Your task to perform on an android device: Is it going to rain this weekend? Image 0: 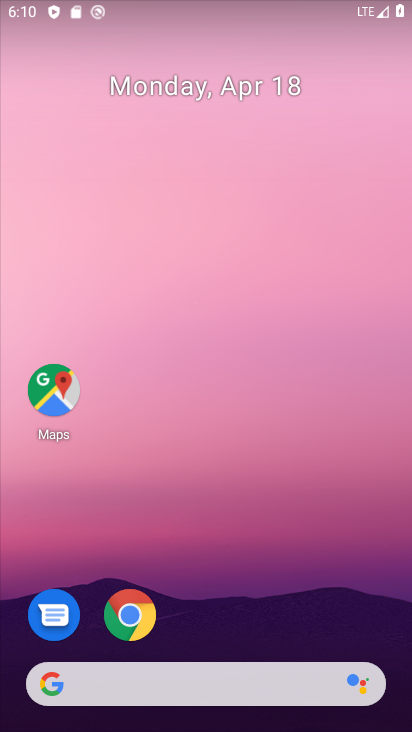
Step 0: drag from (243, 563) to (295, 128)
Your task to perform on an android device: Is it going to rain this weekend? Image 1: 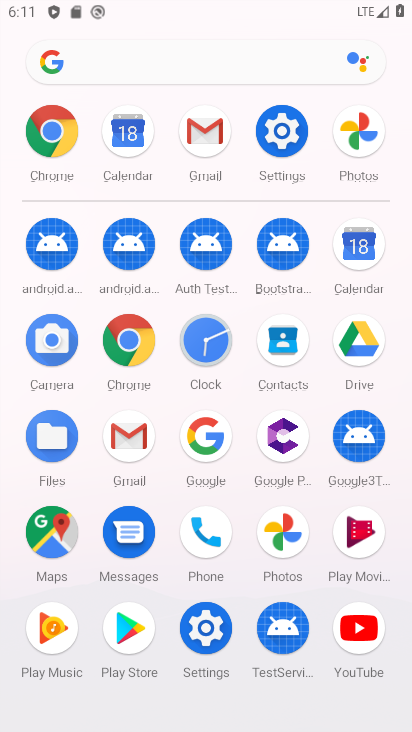
Step 1: click (39, 134)
Your task to perform on an android device: Is it going to rain this weekend? Image 2: 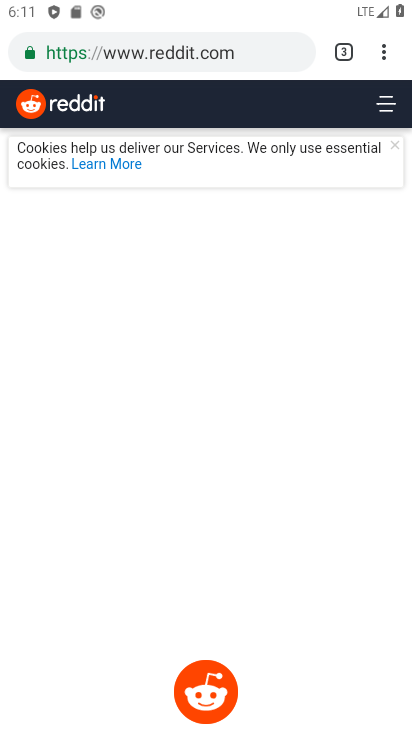
Step 2: click (153, 57)
Your task to perform on an android device: Is it going to rain this weekend? Image 3: 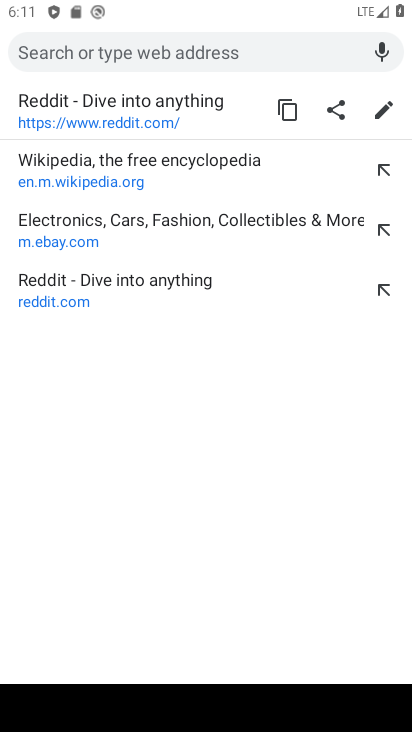
Step 3: click (153, 57)
Your task to perform on an android device: Is it going to rain this weekend? Image 4: 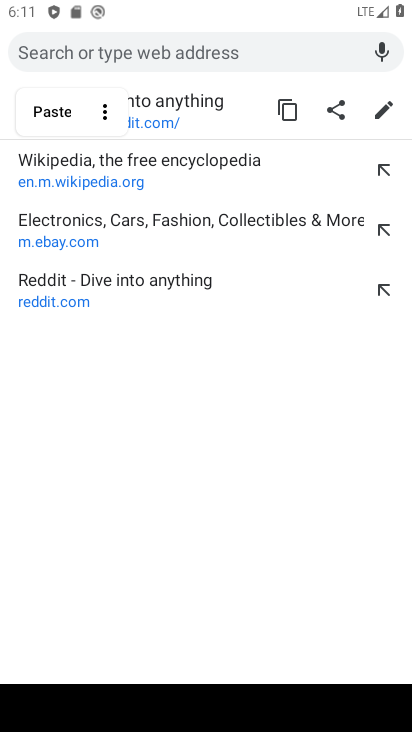
Step 4: type "Is it going to rain this weekend?"
Your task to perform on an android device: Is it going to rain this weekend? Image 5: 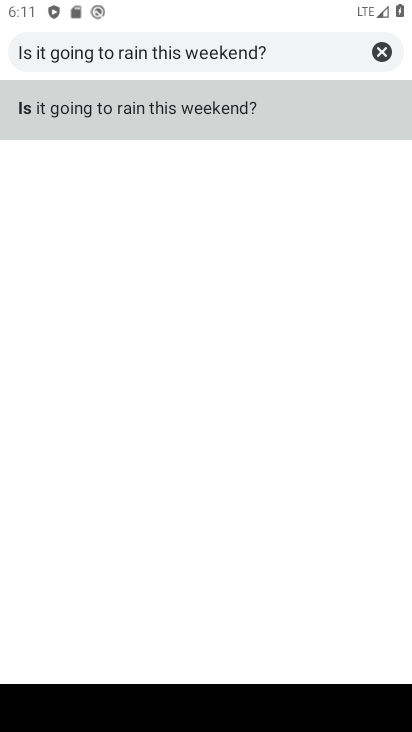
Step 5: click (77, 111)
Your task to perform on an android device: Is it going to rain this weekend? Image 6: 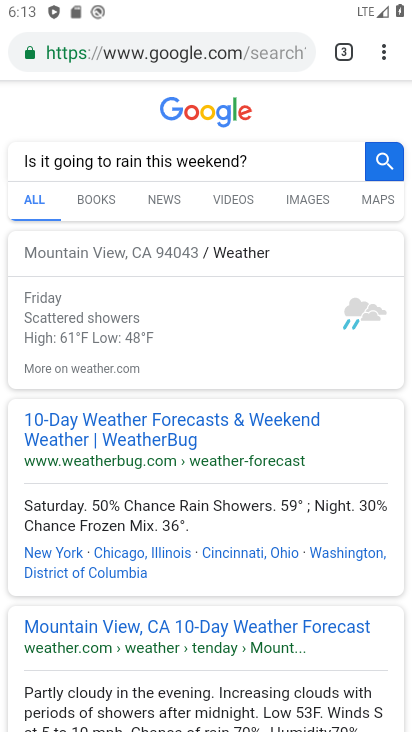
Step 6: task complete